Your task to perform on an android device: turn on javascript in the chrome app Image 0: 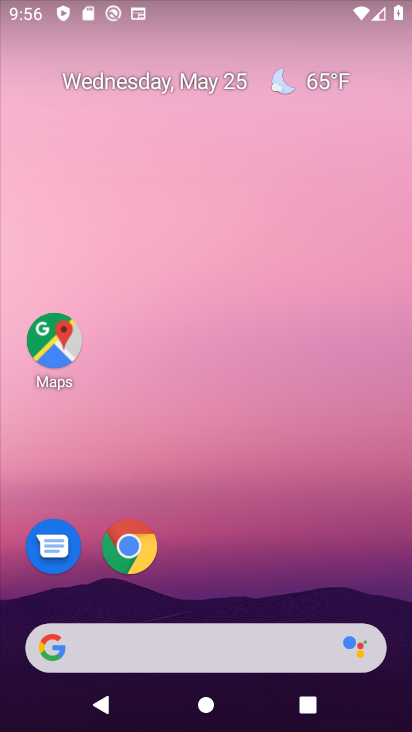
Step 0: drag from (246, 536) to (210, 1)
Your task to perform on an android device: turn on javascript in the chrome app Image 1: 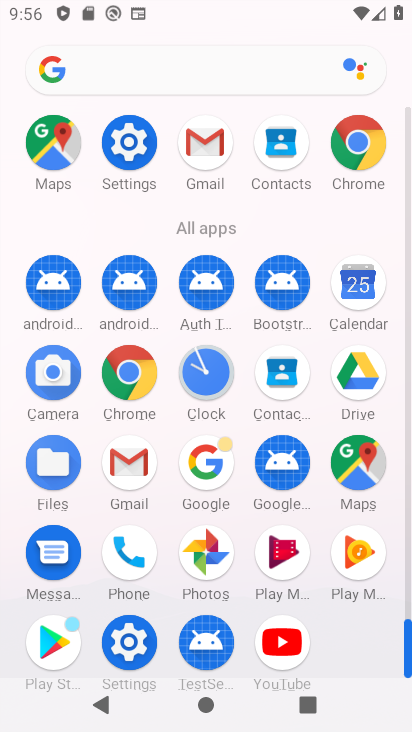
Step 1: click (127, 373)
Your task to perform on an android device: turn on javascript in the chrome app Image 2: 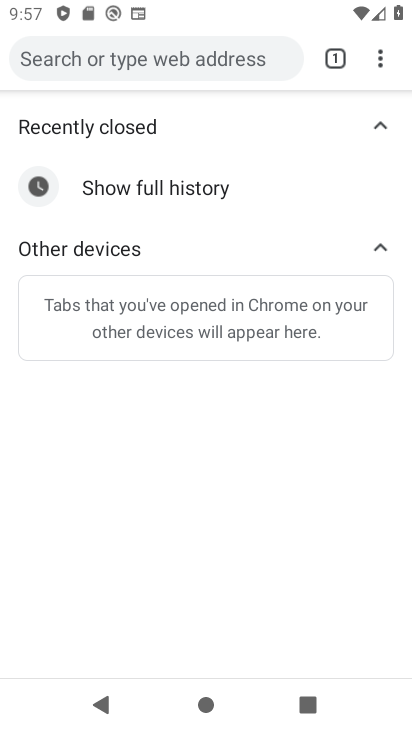
Step 2: drag from (376, 57) to (175, 494)
Your task to perform on an android device: turn on javascript in the chrome app Image 3: 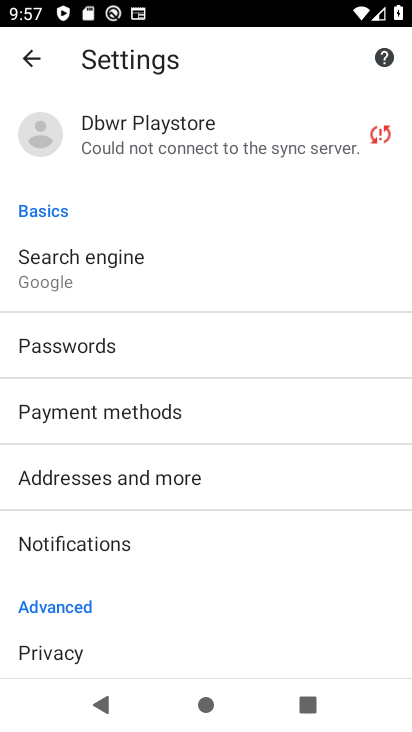
Step 3: drag from (195, 570) to (222, 217)
Your task to perform on an android device: turn on javascript in the chrome app Image 4: 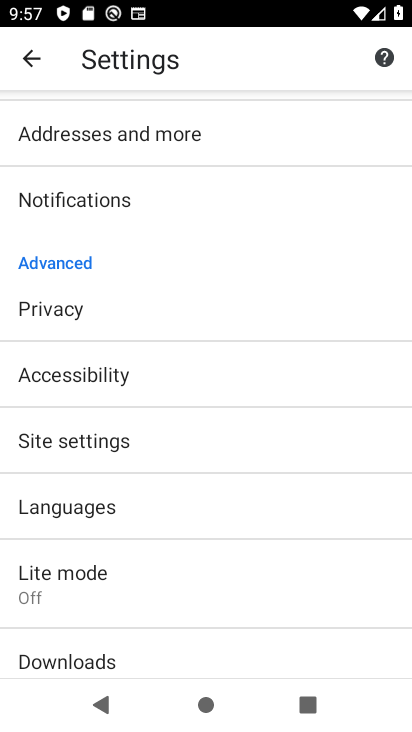
Step 4: click (101, 447)
Your task to perform on an android device: turn on javascript in the chrome app Image 5: 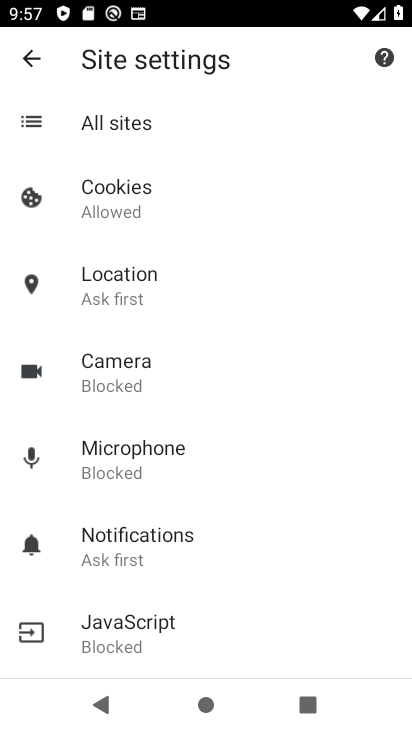
Step 5: click (144, 629)
Your task to perform on an android device: turn on javascript in the chrome app Image 6: 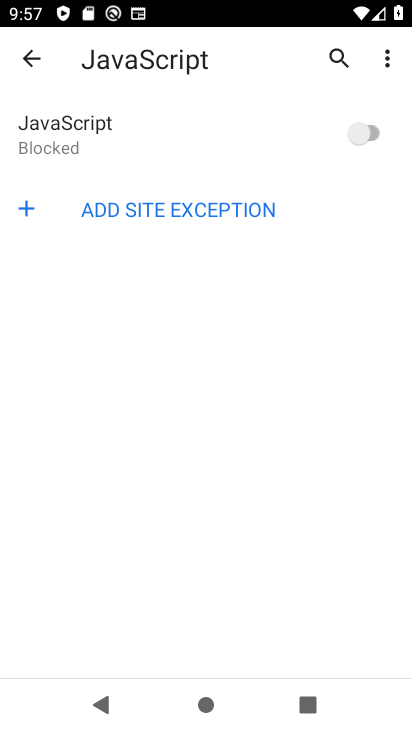
Step 6: click (368, 136)
Your task to perform on an android device: turn on javascript in the chrome app Image 7: 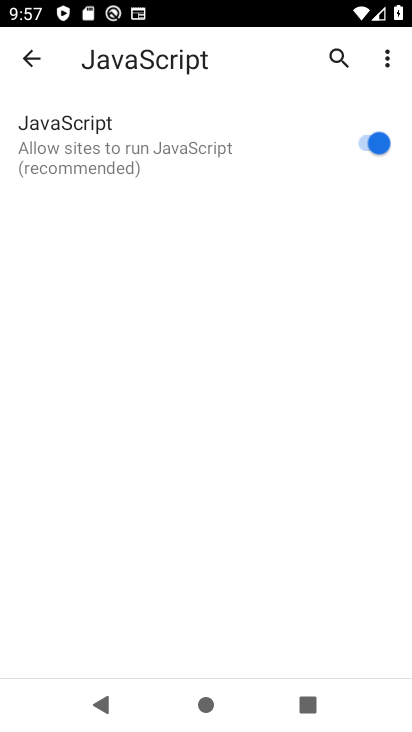
Step 7: task complete